Your task to perform on an android device: toggle improve location accuracy Image 0: 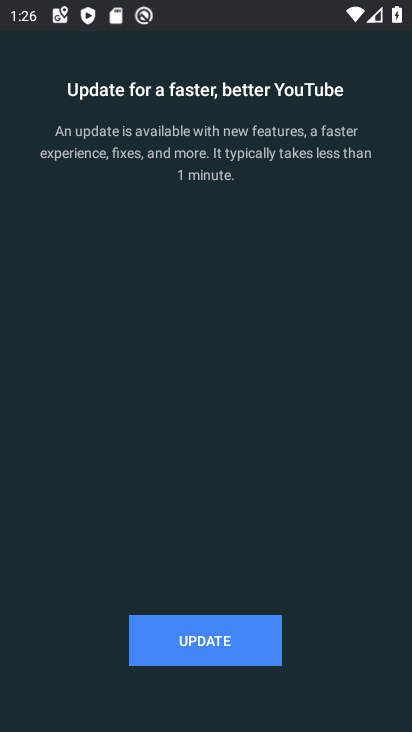
Step 0: press home button
Your task to perform on an android device: toggle improve location accuracy Image 1: 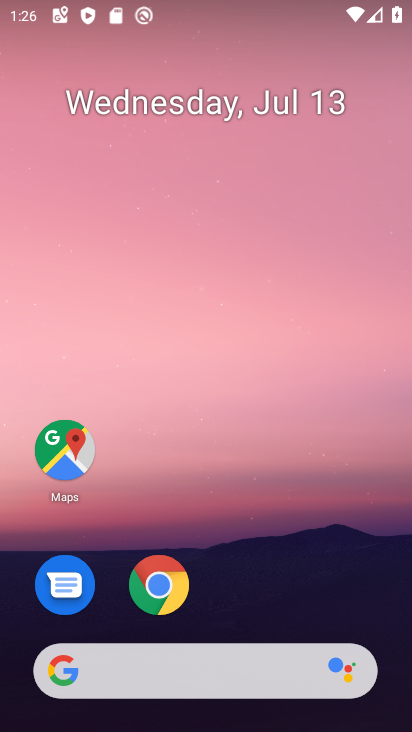
Step 1: drag from (221, 639) to (330, 167)
Your task to perform on an android device: toggle improve location accuracy Image 2: 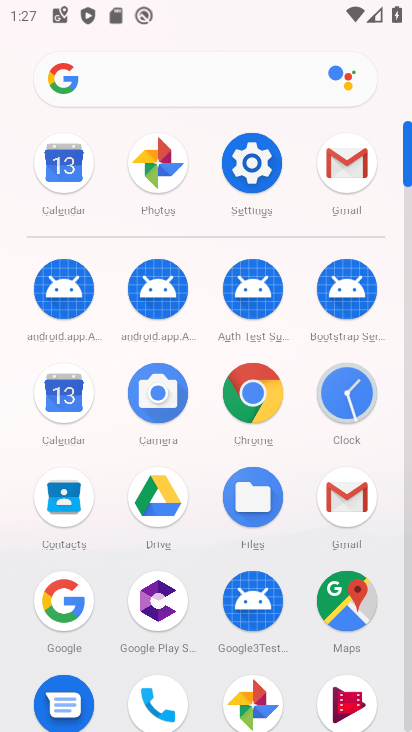
Step 2: click (255, 166)
Your task to perform on an android device: toggle improve location accuracy Image 3: 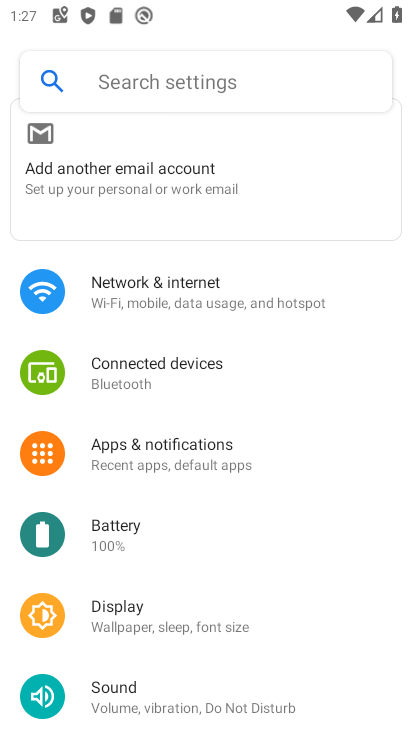
Step 3: drag from (199, 553) to (299, 193)
Your task to perform on an android device: toggle improve location accuracy Image 4: 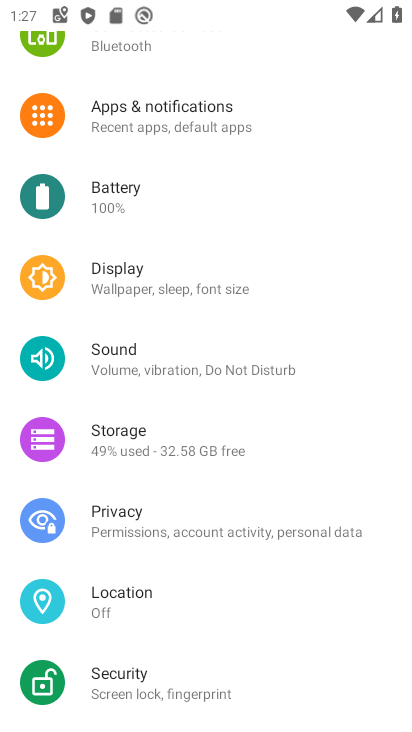
Step 4: click (135, 598)
Your task to perform on an android device: toggle improve location accuracy Image 5: 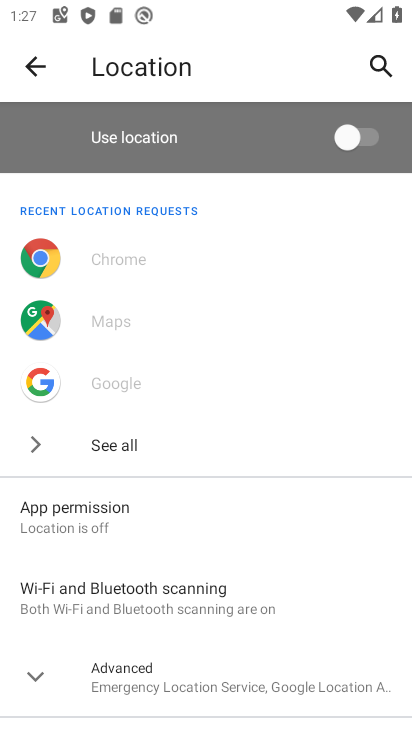
Step 5: drag from (142, 652) to (285, 206)
Your task to perform on an android device: toggle improve location accuracy Image 6: 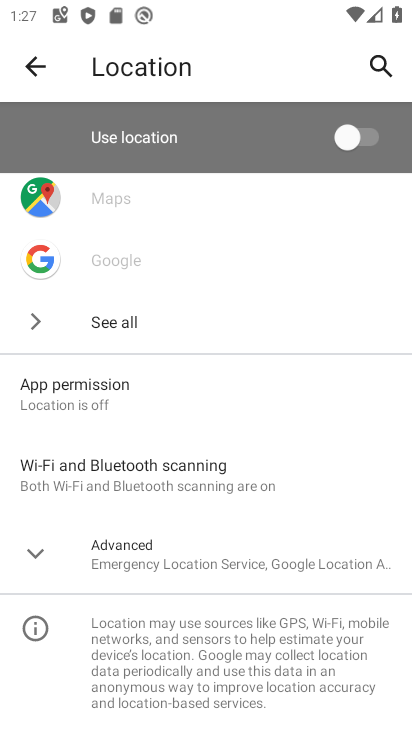
Step 6: click (133, 546)
Your task to perform on an android device: toggle improve location accuracy Image 7: 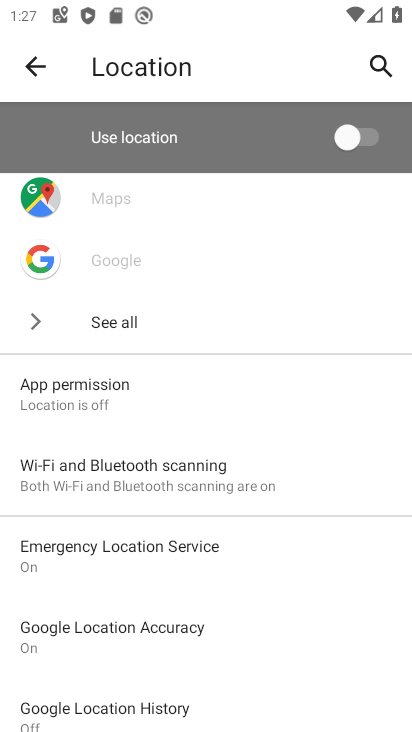
Step 7: click (132, 629)
Your task to perform on an android device: toggle improve location accuracy Image 8: 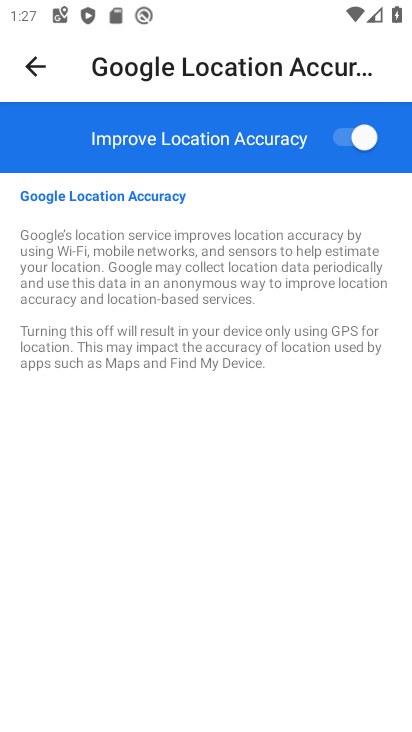
Step 8: click (354, 136)
Your task to perform on an android device: toggle improve location accuracy Image 9: 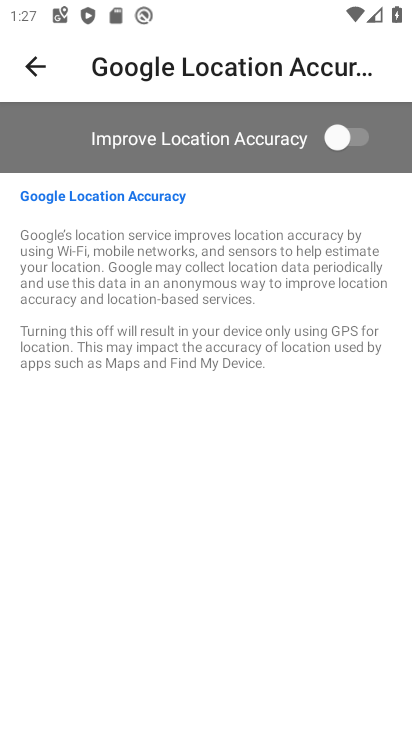
Step 9: task complete